Your task to perform on an android device: Open my contact list Image 0: 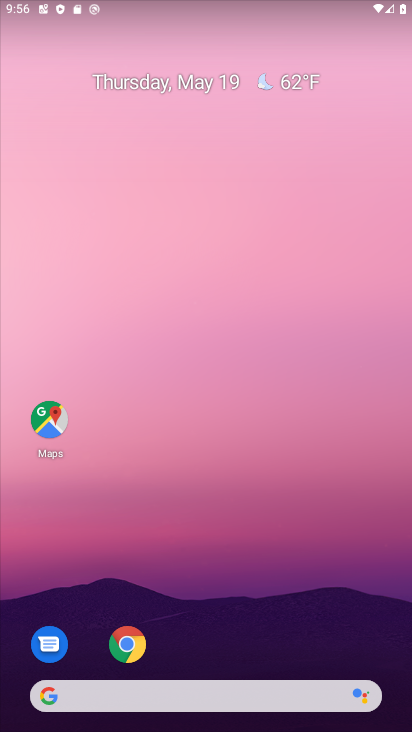
Step 0: drag from (282, 646) to (176, 175)
Your task to perform on an android device: Open my contact list Image 1: 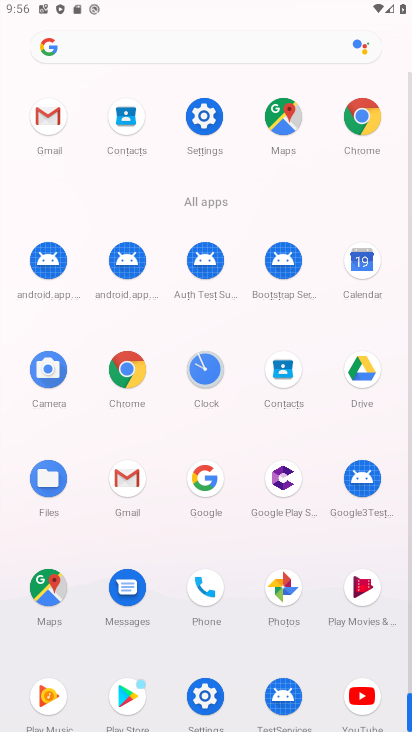
Step 1: click (281, 378)
Your task to perform on an android device: Open my contact list Image 2: 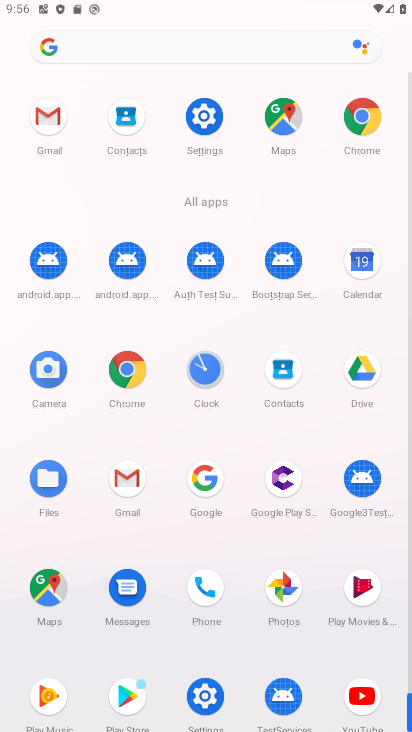
Step 2: click (281, 378)
Your task to perform on an android device: Open my contact list Image 3: 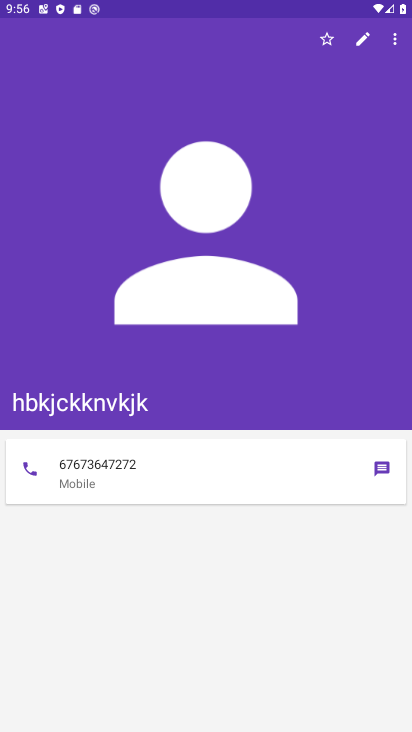
Step 3: click (397, 43)
Your task to perform on an android device: Open my contact list Image 4: 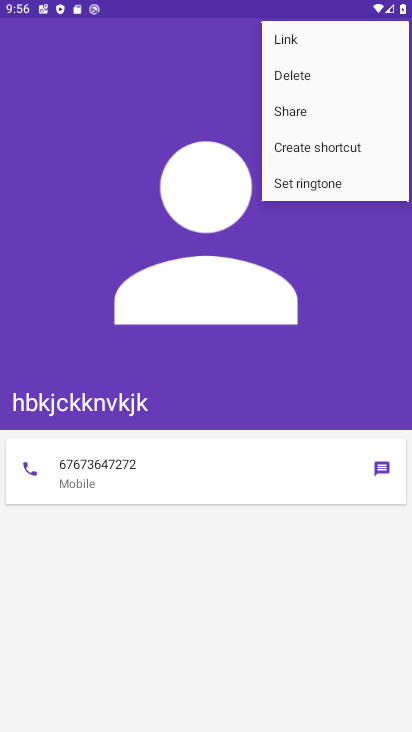
Step 4: click (179, 124)
Your task to perform on an android device: Open my contact list Image 5: 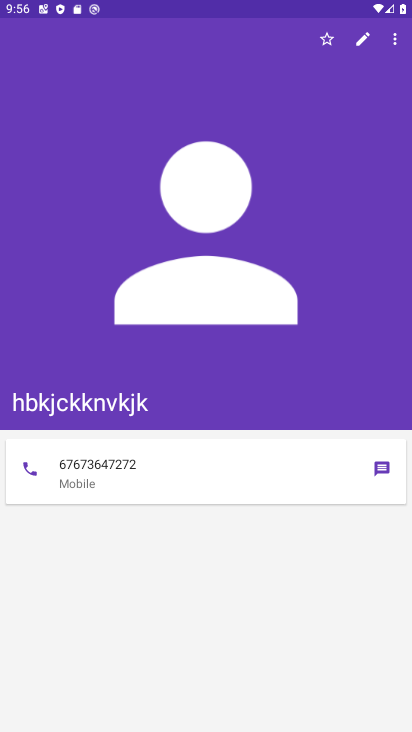
Step 5: click (179, 124)
Your task to perform on an android device: Open my contact list Image 6: 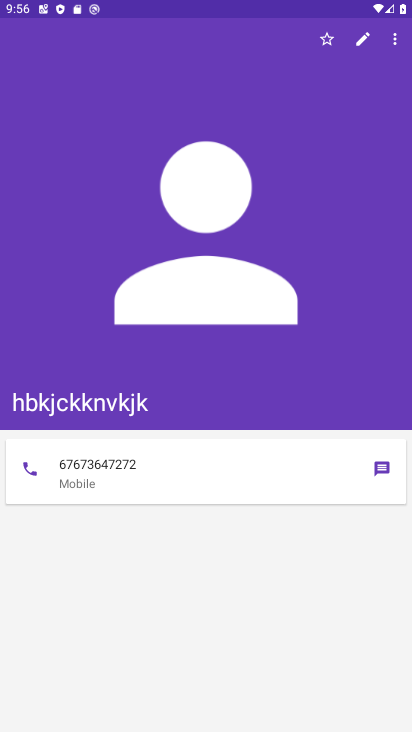
Step 6: click (224, 46)
Your task to perform on an android device: Open my contact list Image 7: 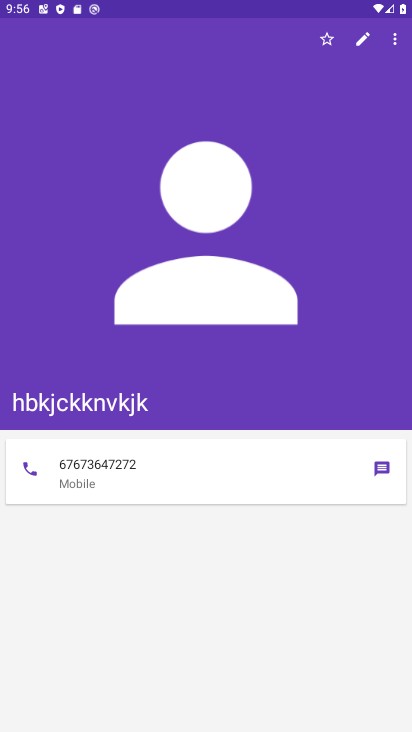
Step 7: task complete